Your task to perform on an android device: Is it going to rain this weekend? Image 0: 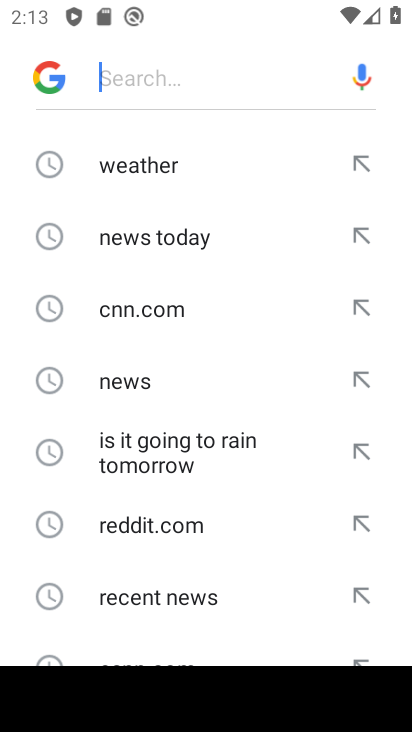
Step 0: click (119, 175)
Your task to perform on an android device: Is it going to rain this weekend? Image 1: 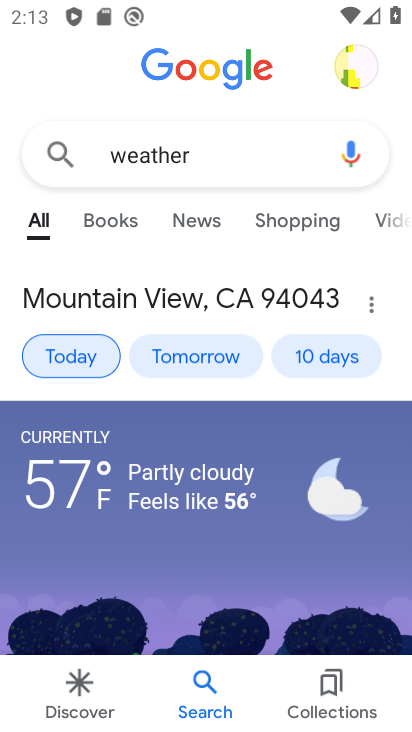
Step 1: click (310, 359)
Your task to perform on an android device: Is it going to rain this weekend? Image 2: 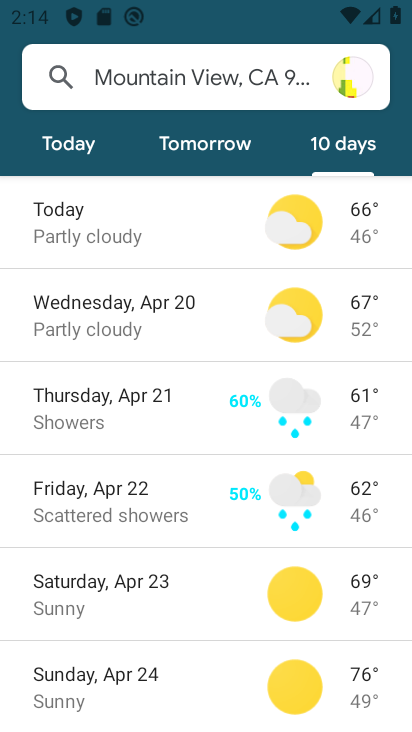
Step 2: task complete